Your task to perform on an android device: Open the phone app and click the voicemail tab. Image 0: 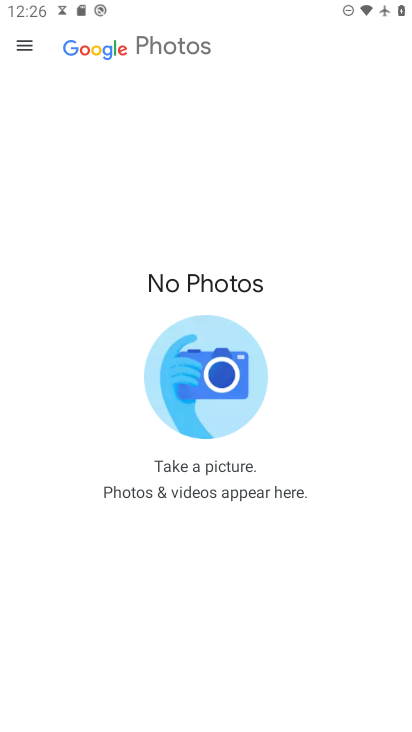
Step 0: press back button
Your task to perform on an android device: Open the phone app and click the voicemail tab. Image 1: 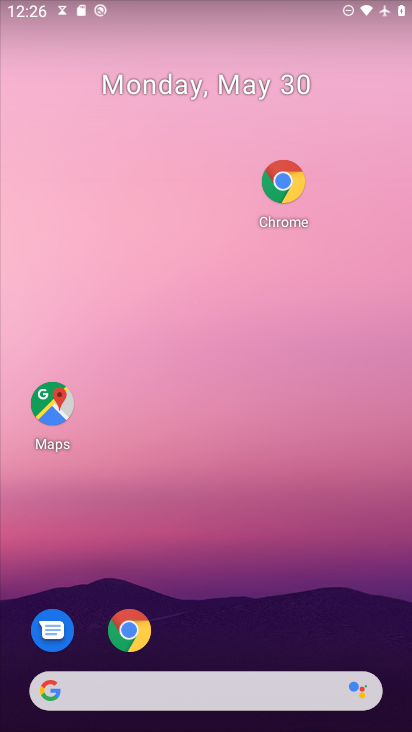
Step 1: drag from (193, 630) to (98, 85)
Your task to perform on an android device: Open the phone app and click the voicemail tab. Image 2: 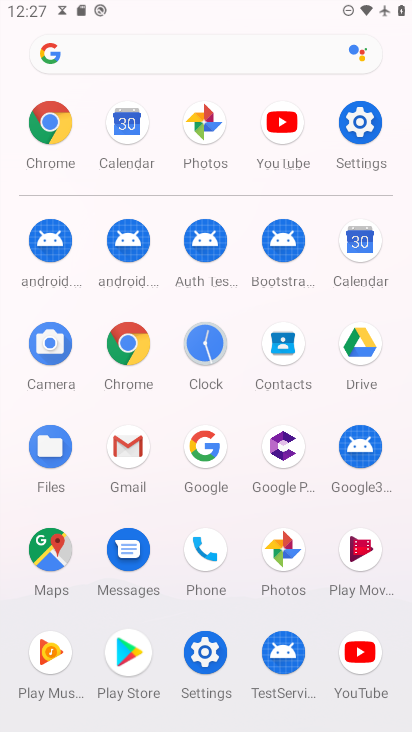
Step 2: click (202, 537)
Your task to perform on an android device: Open the phone app and click the voicemail tab. Image 3: 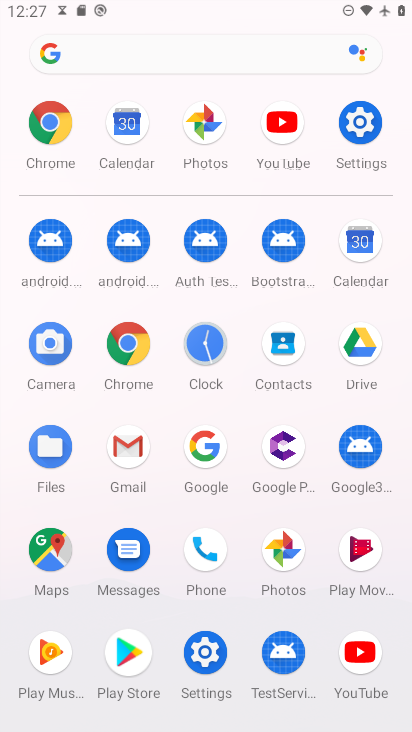
Step 3: click (202, 537)
Your task to perform on an android device: Open the phone app and click the voicemail tab. Image 4: 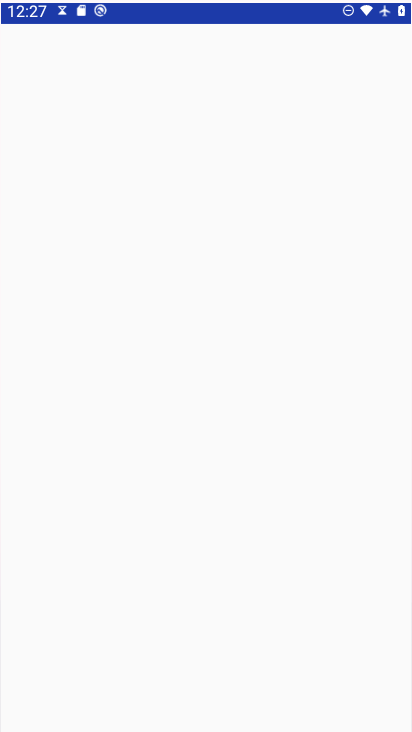
Step 4: click (205, 534)
Your task to perform on an android device: Open the phone app and click the voicemail tab. Image 5: 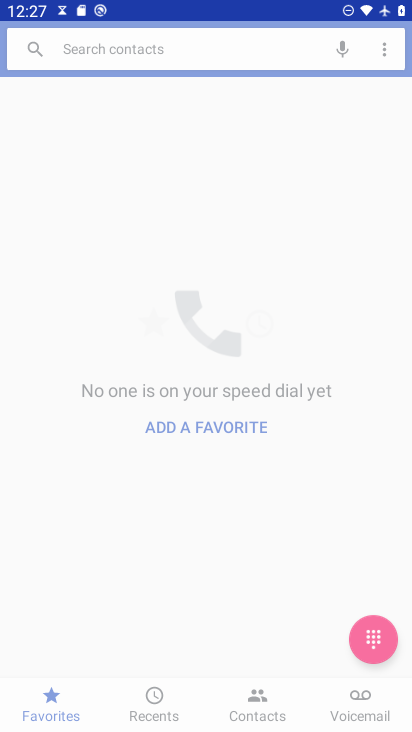
Step 5: click (206, 533)
Your task to perform on an android device: Open the phone app and click the voicemail tab. Image 6: 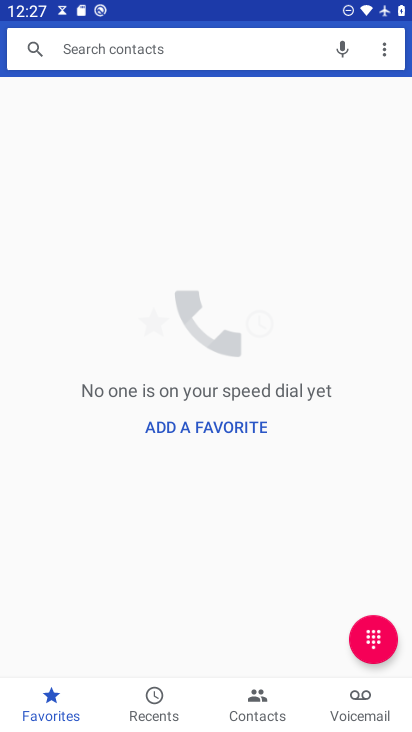
Step 6: click (347, 689)
Your task to perform on an android device: Open the phone app and click the voicemail tab. Image 7: 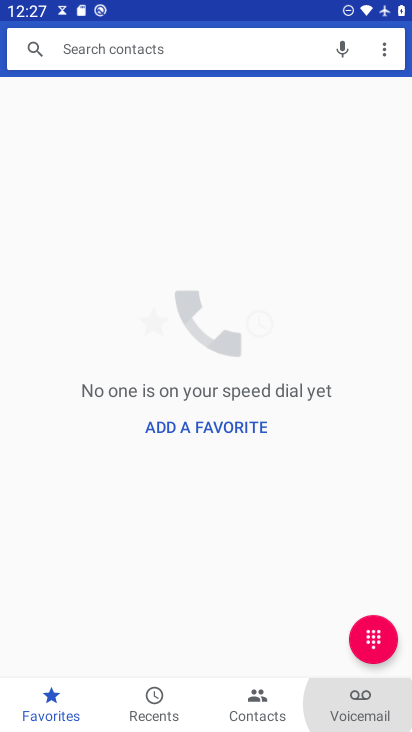
Step 7: click (348, 702)
Your task to perform on an android device: Open the phone app and click the voicemail tab. Image 8: 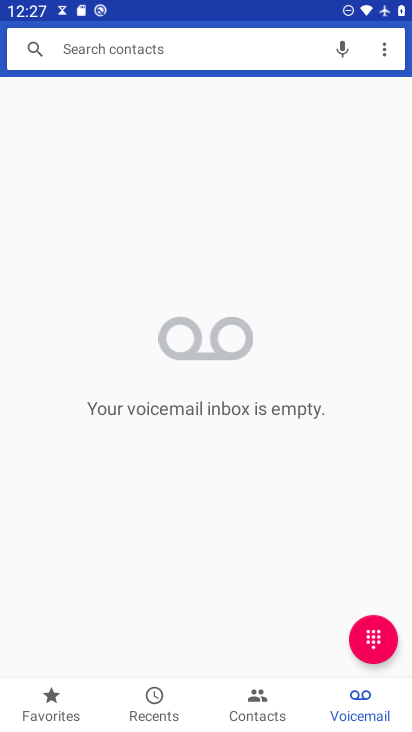
Step 8: click (355, 704)
Your task to perform on an android device: Open the phone app and click the voicemail tab. Image 9: 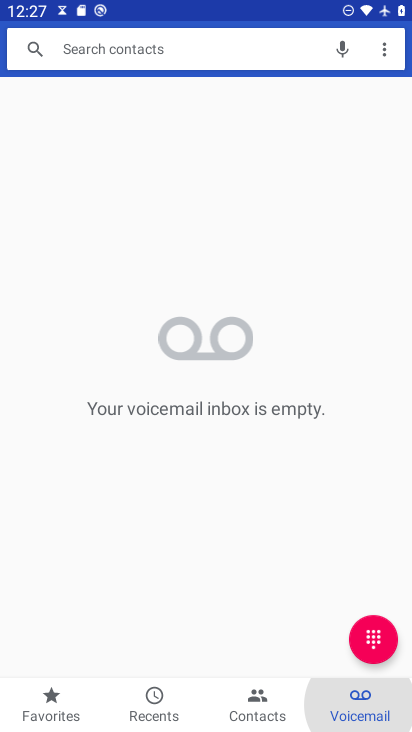
Step 9: click (355, 701)
Your task to perform on an android device: Open the phone app and click the voicemail tab. Image 10: 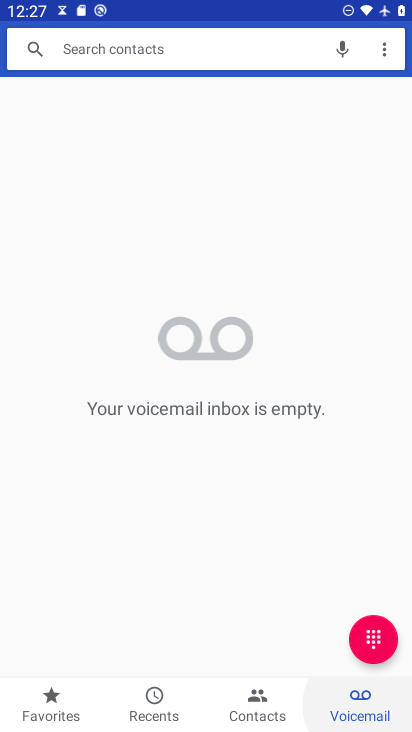
Step 10: click (354, 700)
Your task to perform on an android device: Open the phone app and click the voicemail tab. Image 11: 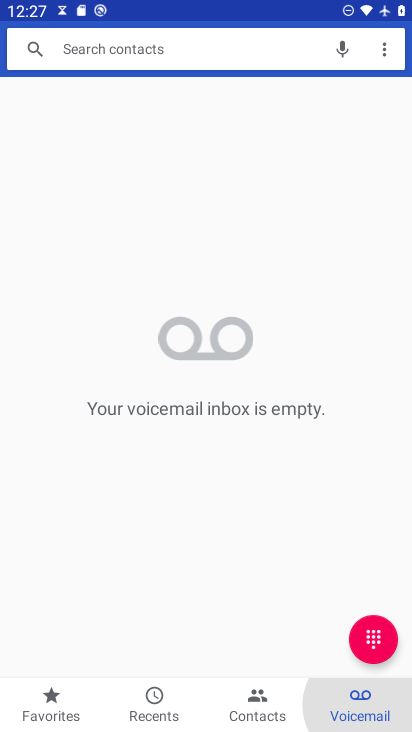
Step 11: click (360, 683)
Your task to perform on an android device: Open the phone app and click the voicemail tab. Image 12: 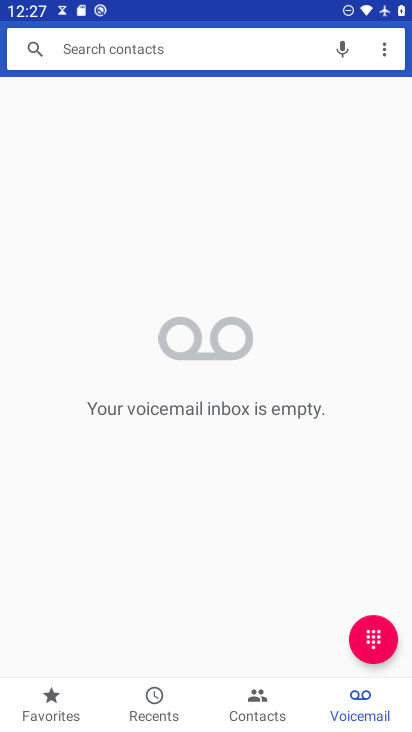
Step 12: task complete